Your task to perform on an android device: change your default location settings in chrome Image 0: 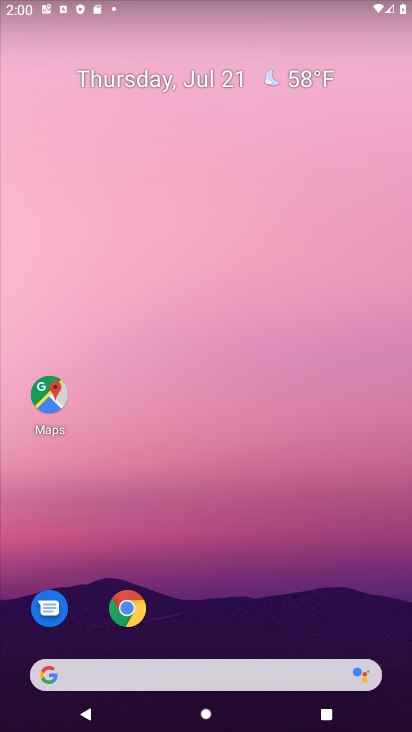
Step 0: drag from (395, 633) to (160, 8)
Your task to perform on an android device: change your default location settings in chrome Image 1: 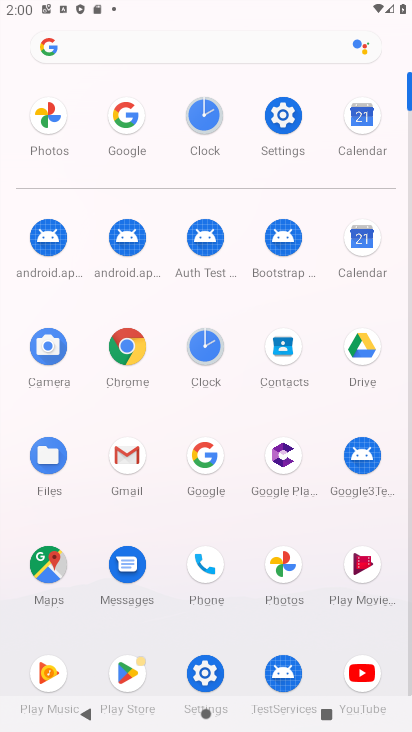
Step 1: click (125, 333)
Your task to perform on an android device: change your default location settings in chrome Image 2: 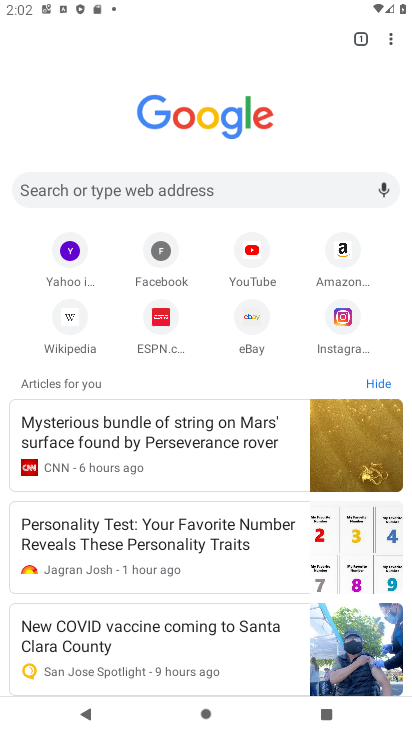
Step 2: click (386, 36)
Your task to perform on an android device: change your default location settings in chrome Image 3: 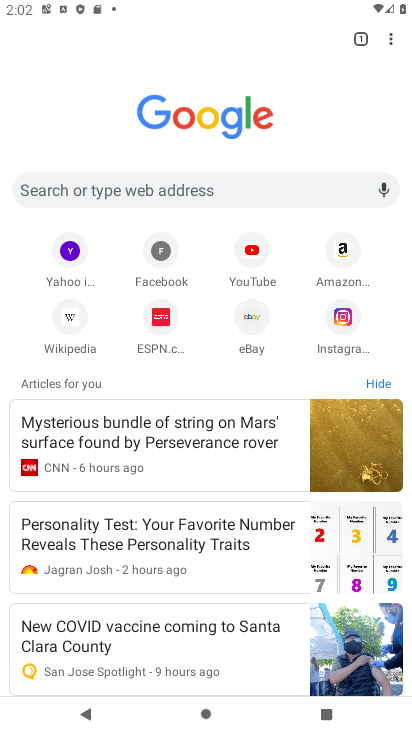
Step 3: click (392, 33)
Your task to perform on an android device: change your default location settings in chrome Image 4: 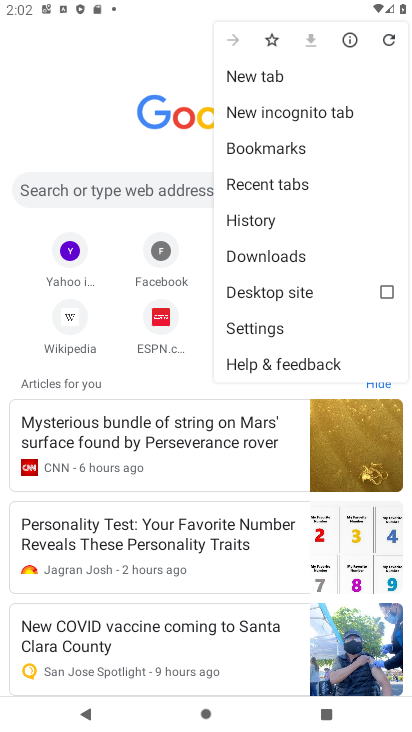
Step 4: click (246, 324)
Your task to perform on an android device: change your default location settings in chrome Image 5: 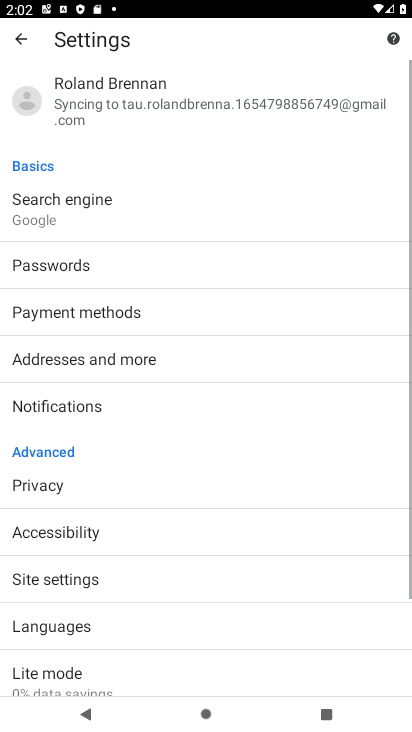
Step 5: click (104, 207)
Your task to perform on an android device: change your default location settings in chrome Image 6: 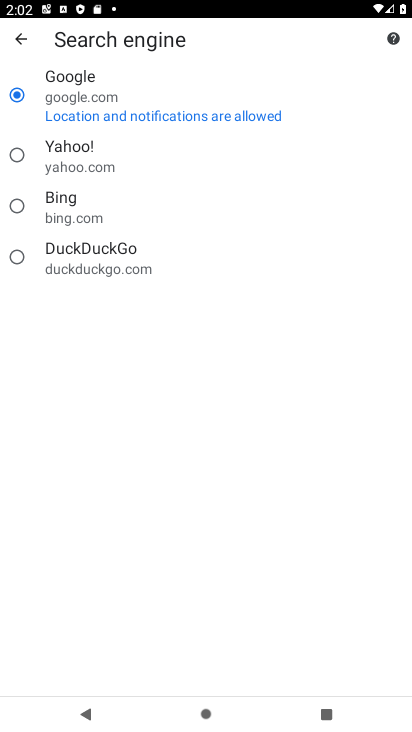
Step 6: click (96, 212)
Your task to perform on an android device: change your default location settings in chrome Image 7: 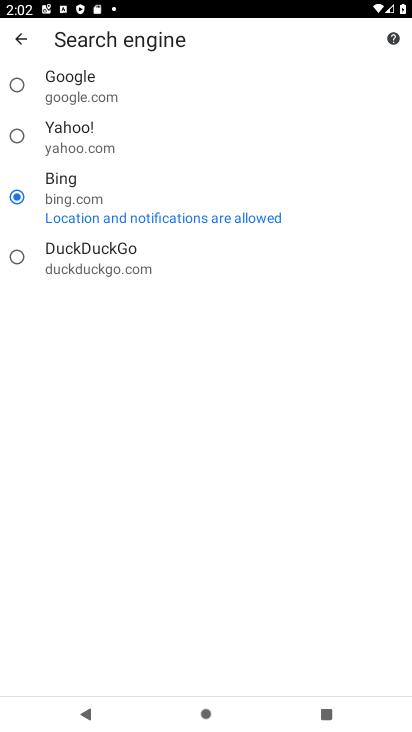
Step 7: task complete